Your task to perform on an android device: turn on bluetooth scan Image 0: 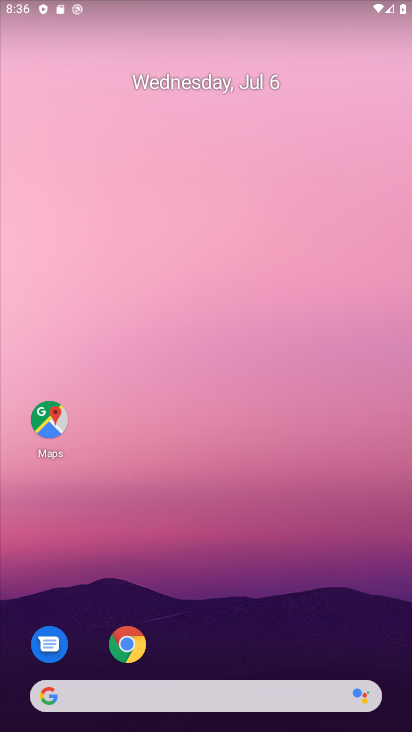
Step 0: drag from (221, 651) to (190, 110)
Your task to perform on an android device: turn on bluetooth scan Image 1: 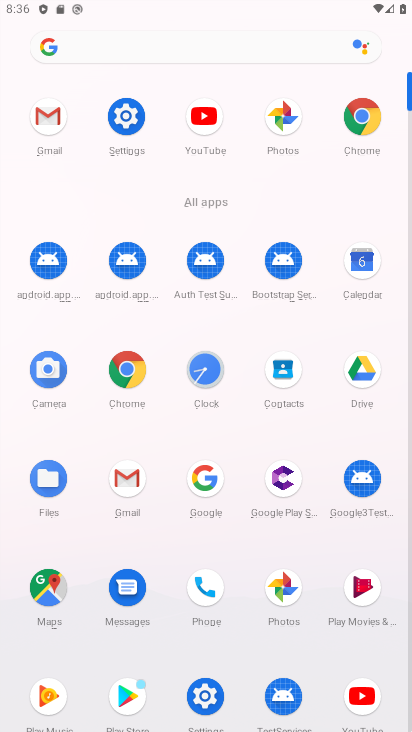
Step 1: click (130, 115)
Your task to perform on an android device: turn on bluetooth scan Image 2: 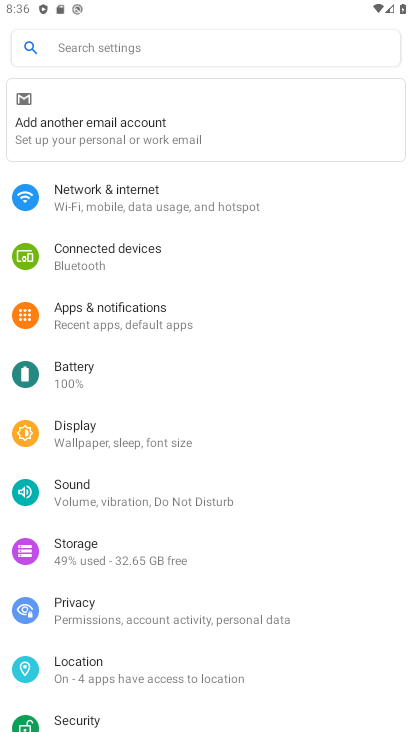
Step 2: click (89, 660)
Your task to perform on an android device: turn on bluetooth scan Image 3: 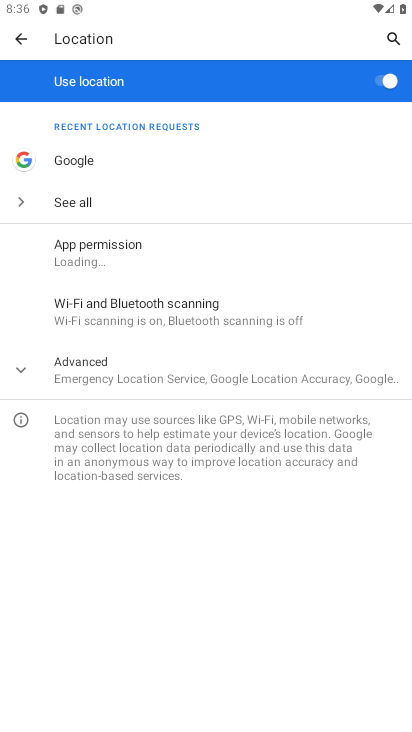
Step 3: click (143, 320)
Your task to perform on an android device: turn on bluetooth scan Image 4: 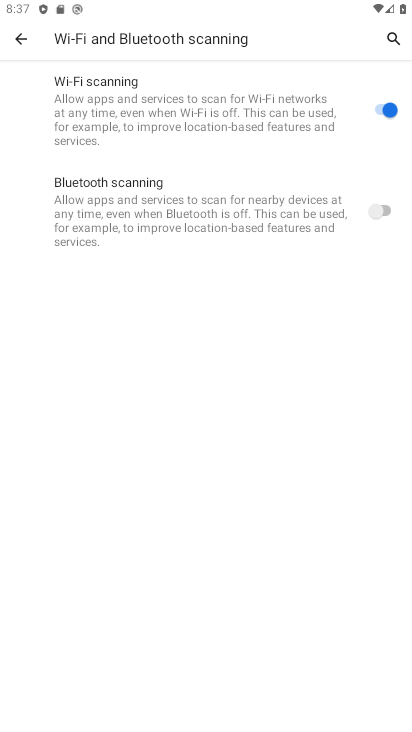
Step 4: click (373, 202)
Your task to perform on an android device: turn on bluetooth scan Image 5: 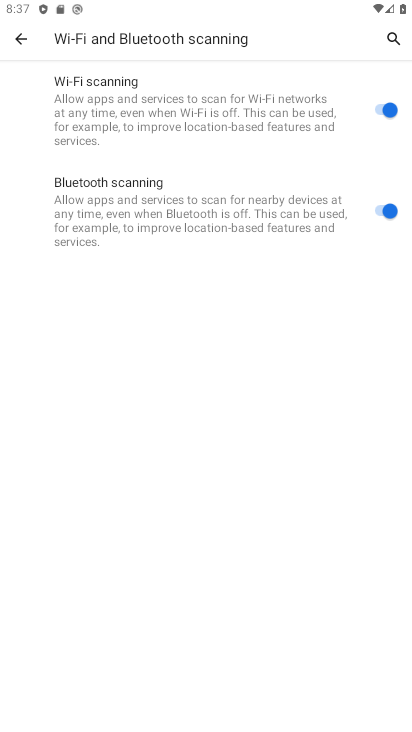
Step 5: task complete